Your task to perform on an android device: empty trash in the gmail app Image 0: 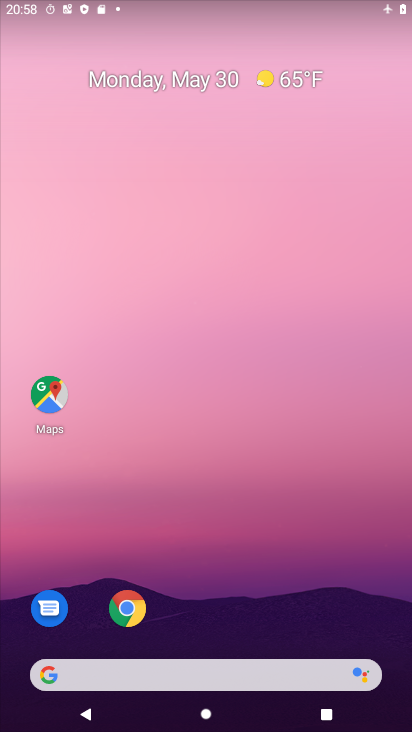
Step 0: drag from (185, 576) to (181, 198)
Your task to perform on an android device: empty trash in the gmail app Image 1: 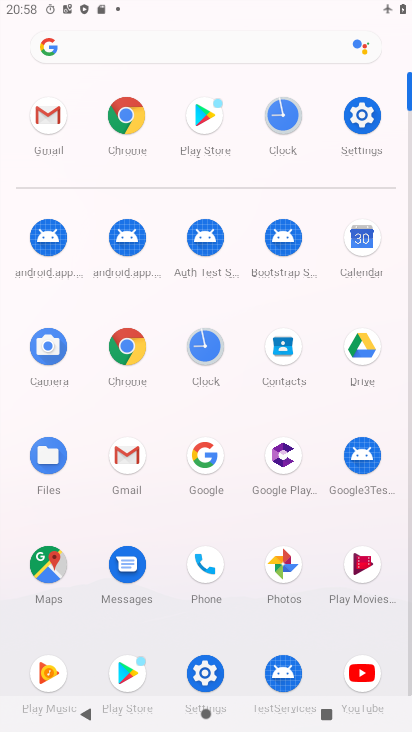
Step 1: click (141, 466)
Your task to perform on an android device: empty trash in the gmail app Image 2: 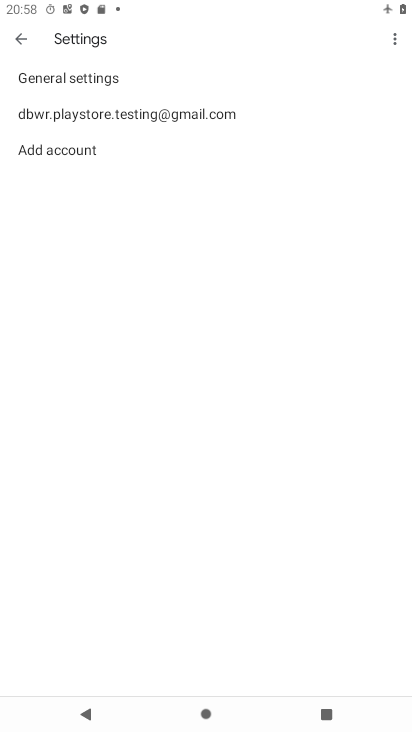
Step 2: click (27, 40)
Your task to perform on an android device: empty trash in the gmail app Image 3: 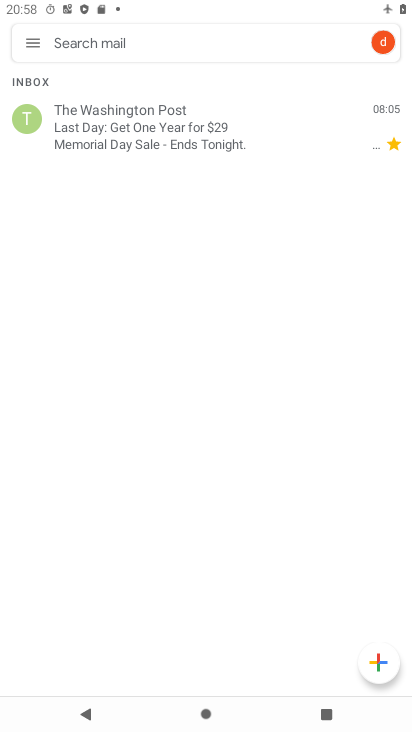
Step 3: click (27, 40)
Your task to perform on an android device: empty trash in the gmail app Image 4: 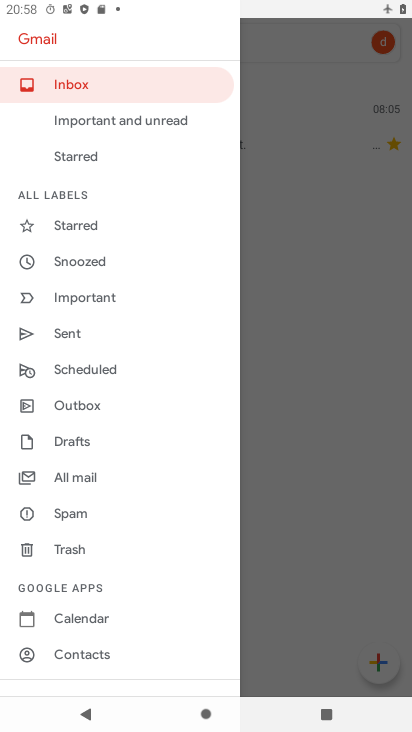
Step 4: click (93, 544)
Your task to perform on an android device: empty trash in the gmail app Image 5: 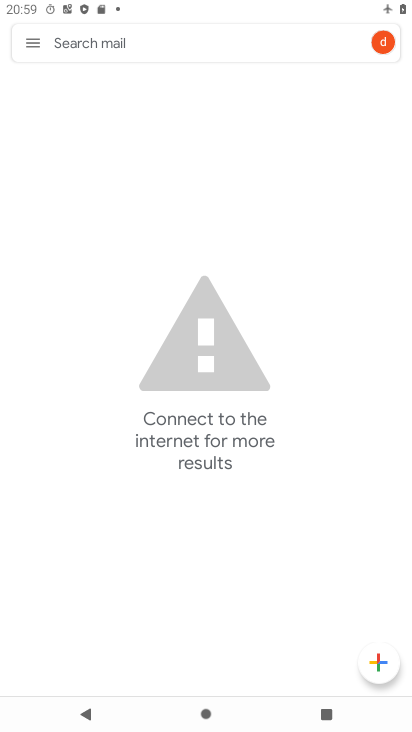
Step 5: task complete